Your task to perform on an android device: create a new album in the google photos Image 0: 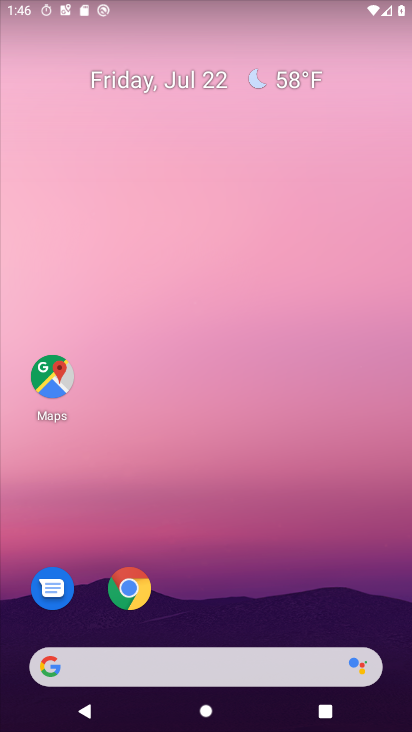
Step 0: press home button
Your task to perform on an android device: create a new album in the google photos Image 1: 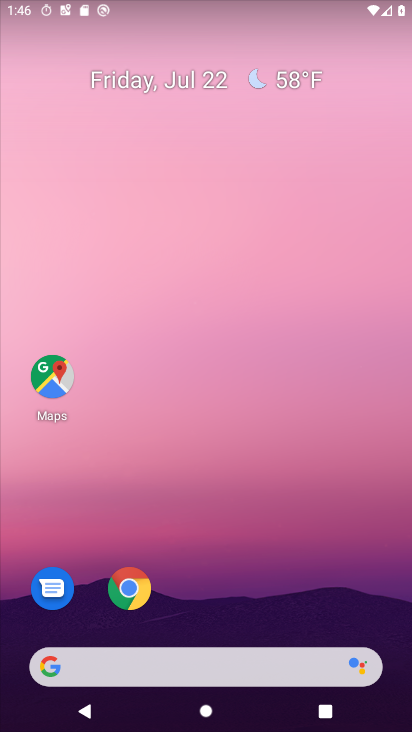
Step 1: press home button
Your task to perform on an android device: create a new album in the google photos Image 2: 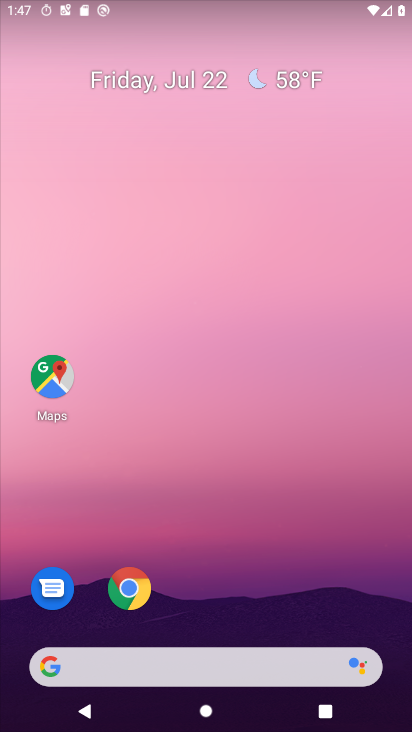
Step 2: drag from (202, 580) to (200, 121)
Your task to perform on an android device: create a new album in the google photos Image 3: 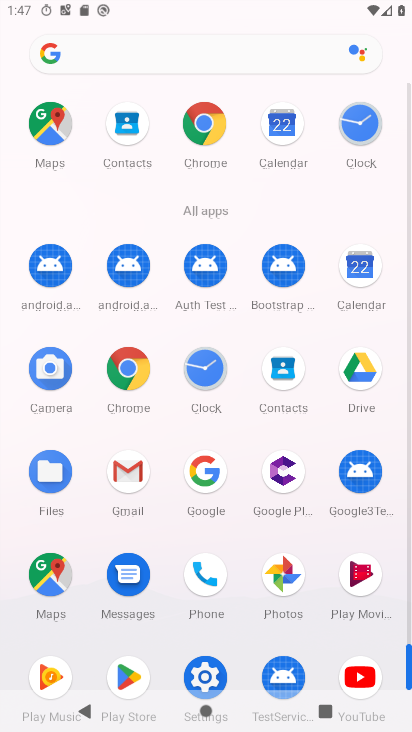
Step 3: click (278, 554)
Your task to perform on an android device: create a new album in the google photos Image 4: 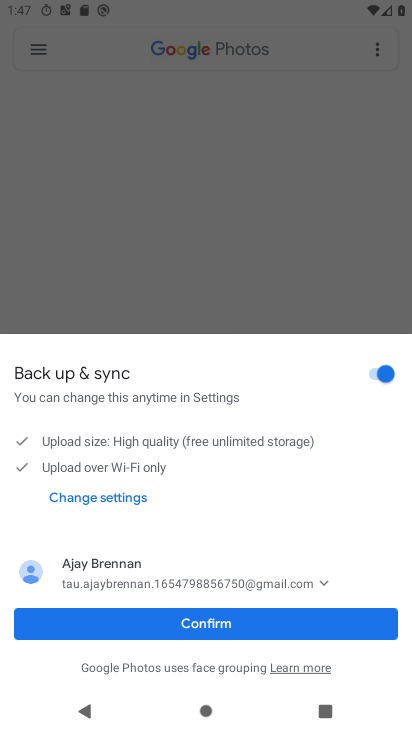
Step 4: click (242, 629)
Your task to perform on an android device: create a new album in the google photos Image 5: 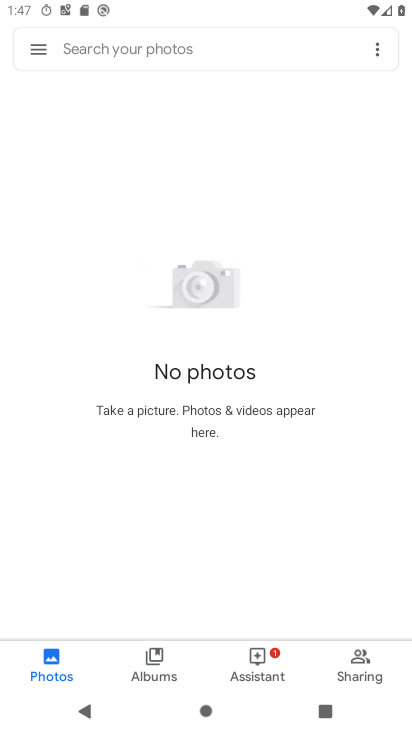
Step 5: click (145, 675)
Your task to perform on an android device: create a new album in the google photos Image 6: 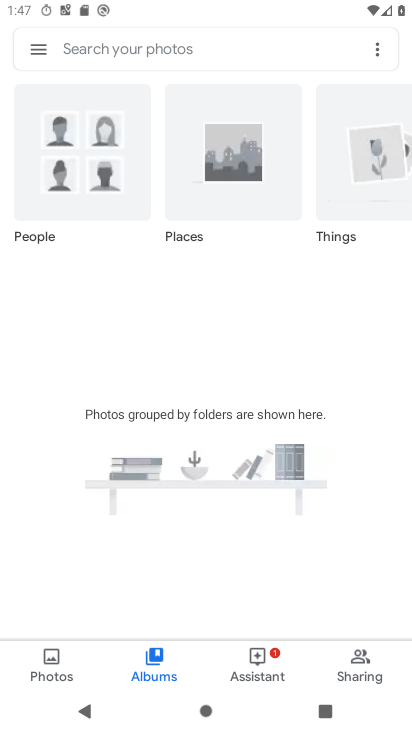
Step 6: click (378, 37)
Your task to perform on an android device: create a new album in the google photos Image 7: 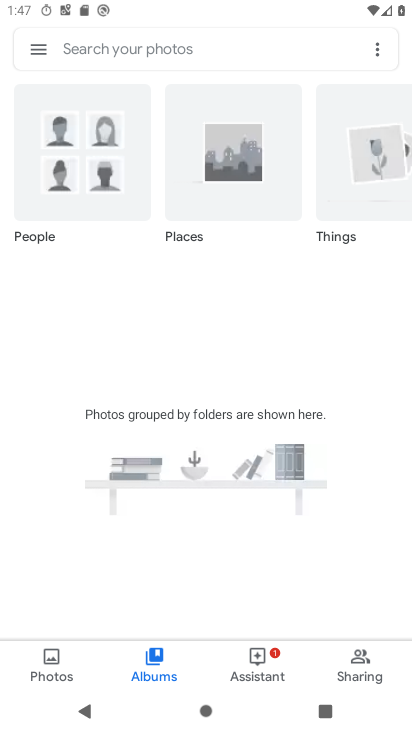
Step 7: click (375, 54)
Your task to perform on an android device: create a new album in the google photos Image 8: 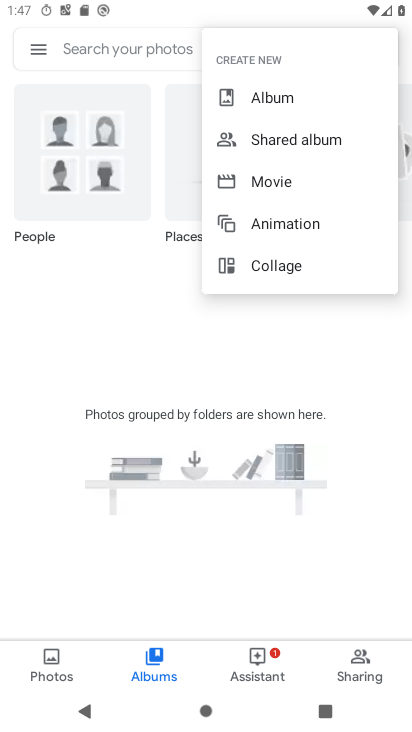
Step 8: click (257, 100)
Your task to perform on an android device: create a new album in the google photos Image 9: 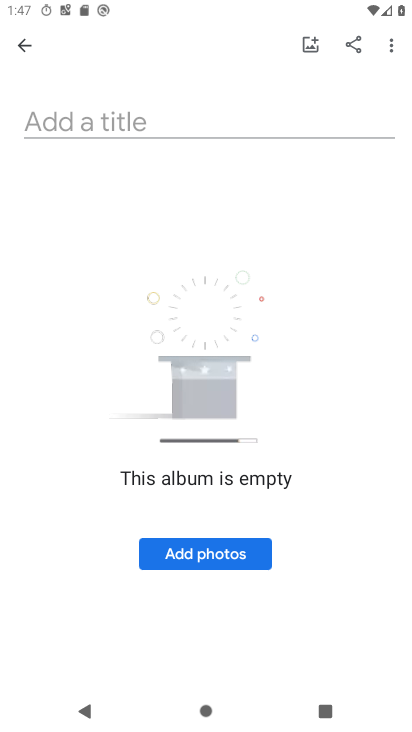
Step 9: click (113, 117)
Your task to perform on an android device: create a new album in the google photos Image 10: 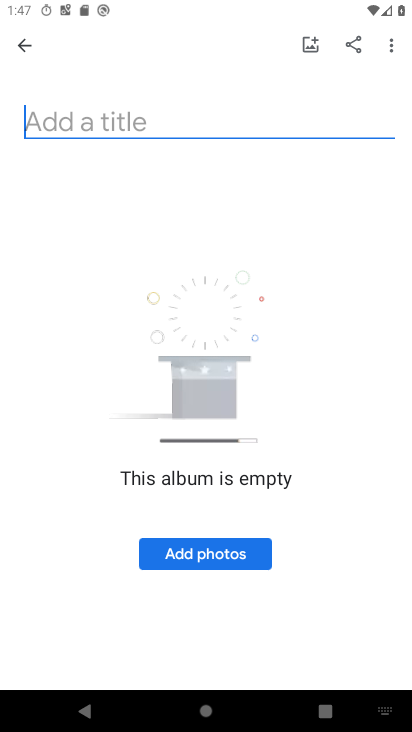
Step 10: type "dfghjk"
Your task to perform on an android device: create a new album in the google photos Image 11: 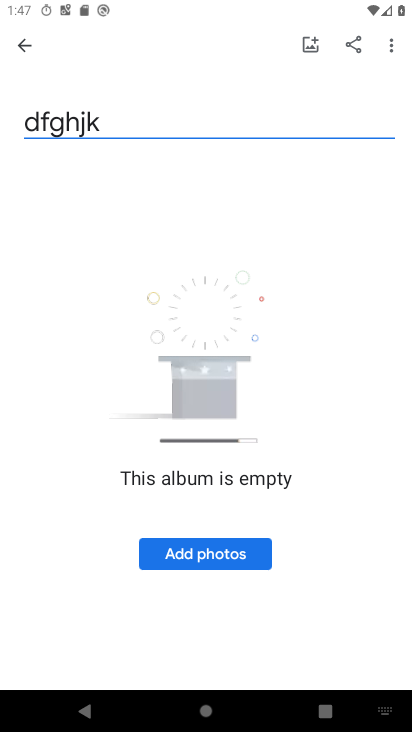
Step 11: click (166, 564)
Your task to perform on an android device: create a new album in the google photos Image 12: 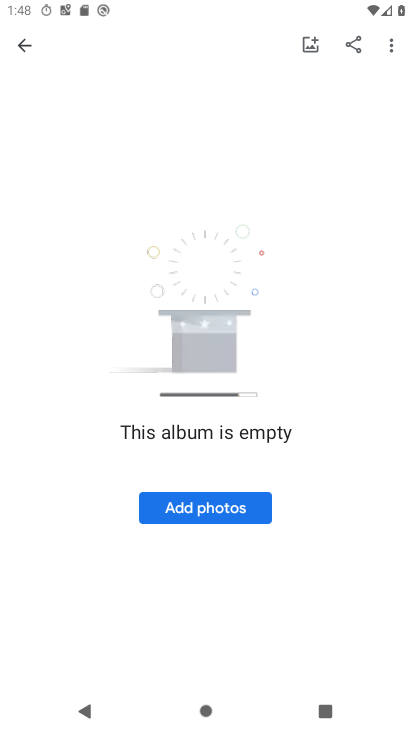
Step 12: click (225, 510)
Your task to perform on an android device: create a new album in the google photos Image 13: 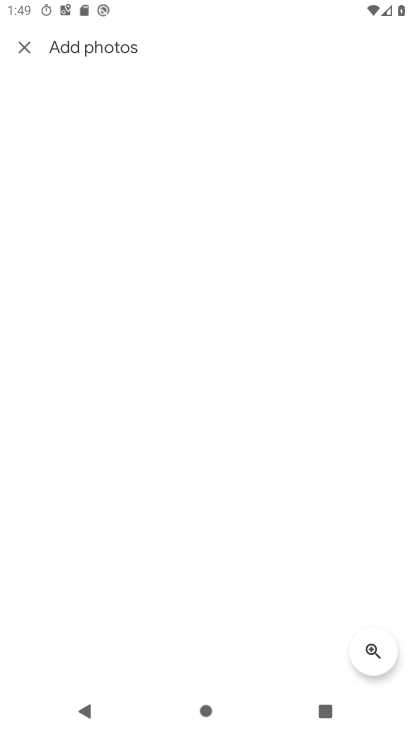
Step 13: drag from (29, 33) to (101, 88)
Your task to perform on an android device: create a new album in the google photos Image 14: 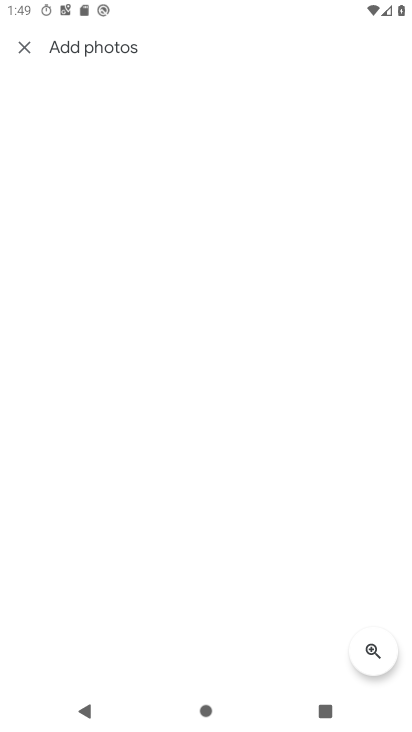
Step 14: drag from (28, 49) to (94, 73)
Your task to perform on an android device: create a new album in the google photos Image 15: 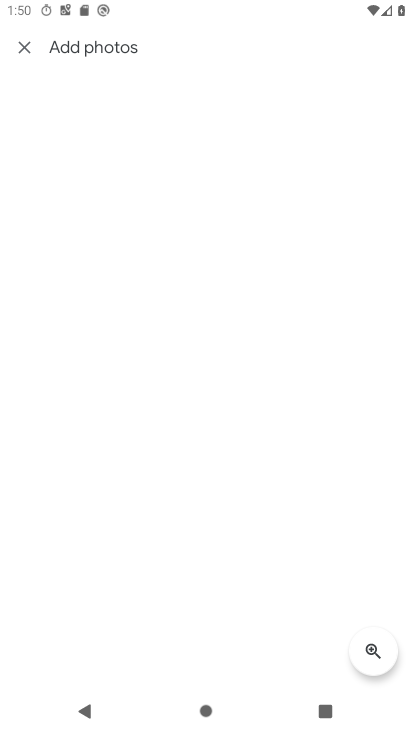
Step 15: click (25, 51)
Your task to perform on an android device: create a new album in the google photos Image 16: 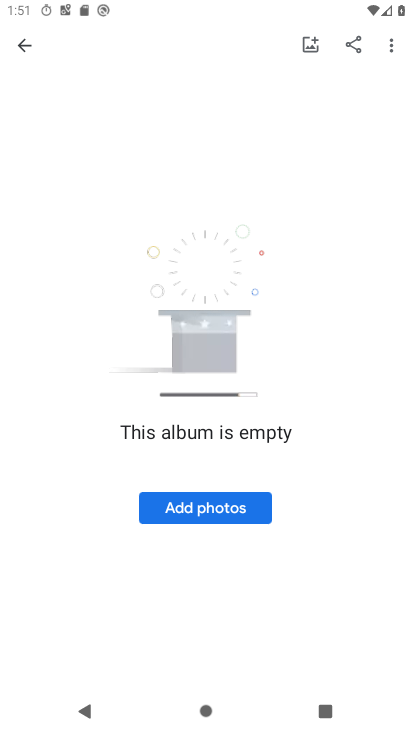
Step 16: task complete